Your task to perform on an android device: Open the phone app and click the voicemail tab. Image 0: 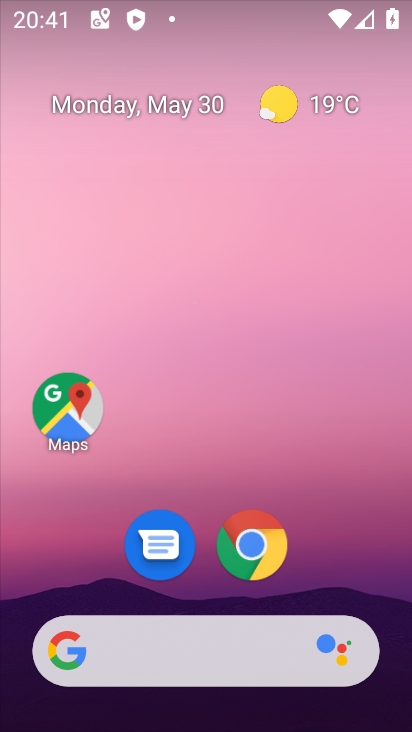
Step 0: drag from (359, 572) to (327, 47)
Your task to perform on an android device: Open the phone app and click the voicemail tab. Image 1: 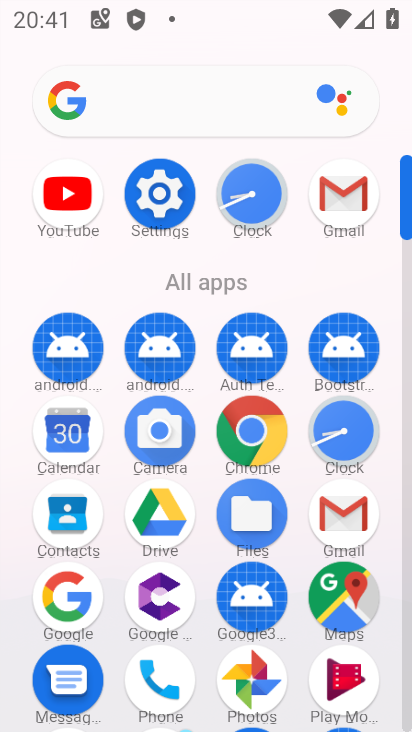
Step 1: click (161, 667)
Your task to perform on an android device: Open the phone app and click the voicemail tab. Image 2: 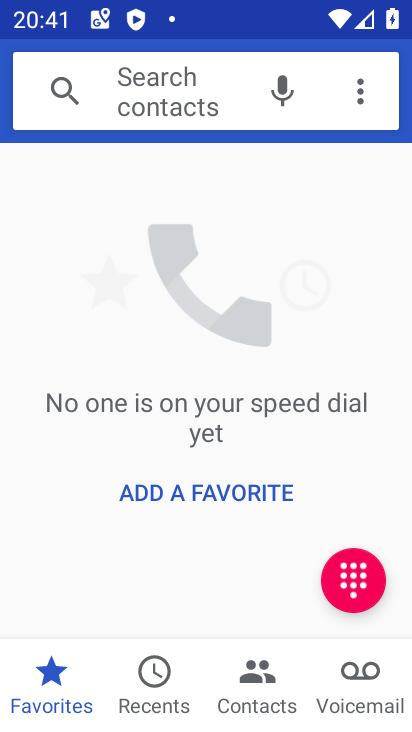
Step 2: click (370, 683)
Your task to perform on an android device: Open the phone app and click the voicemail tab. Image 3: 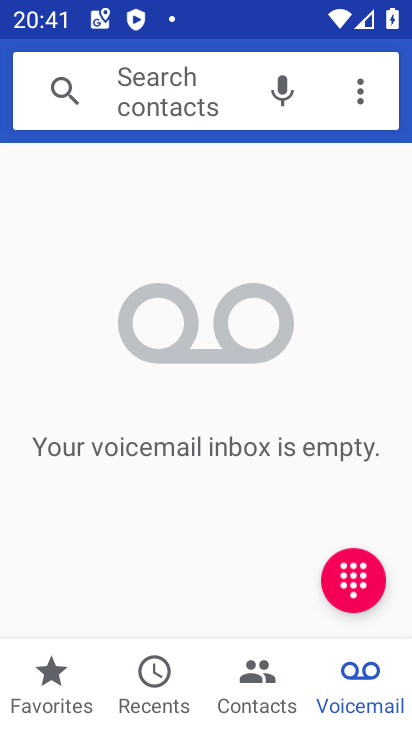
Step 3: task complete